Your task to perform on an android device: Go to Reddit.com Image 0: 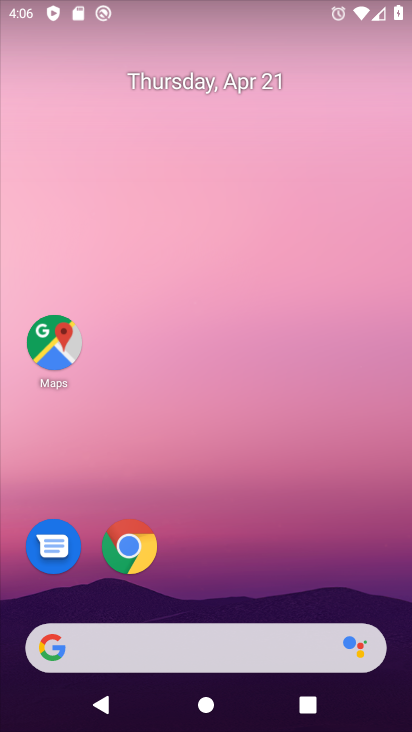
Step 0: drag from (235, 490) to (237, 182)
Your task to perform on an android device: Go to Reddit.com Image 1: 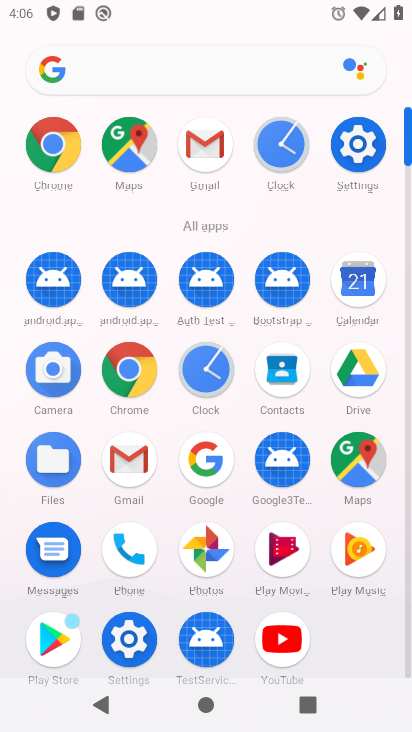
Step 1: click (131, 375)
Your task to perform on an android device: Go to Reddit.com Image 2: 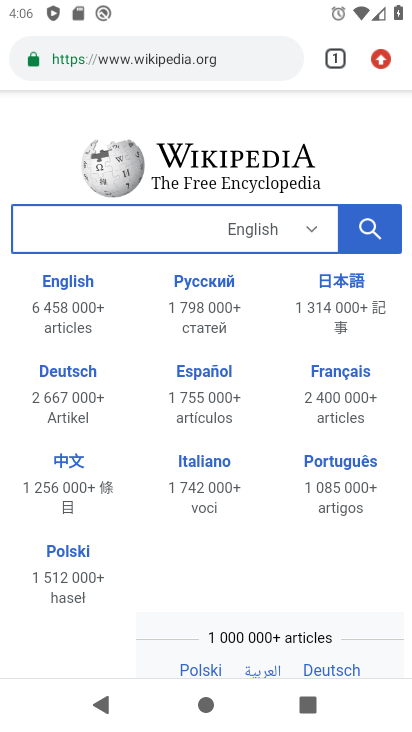
Step 2: click (241, 52)
Your task to perform on an android device: Go to Reddit.com Image 3: 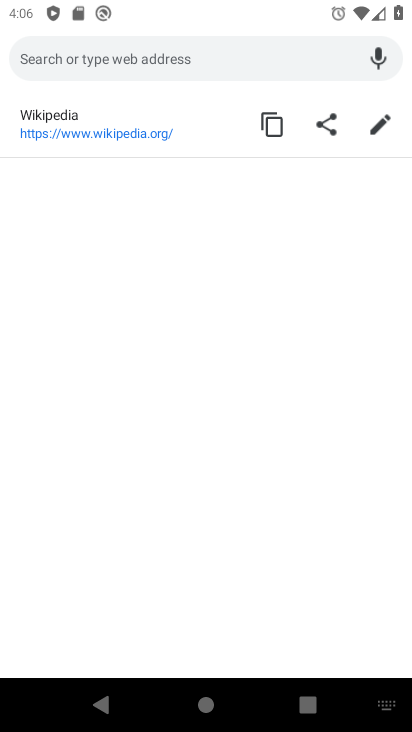
Step 3: type "reddit.com"
Your task to perform on an android device: Go to Reddit.com Image 4: 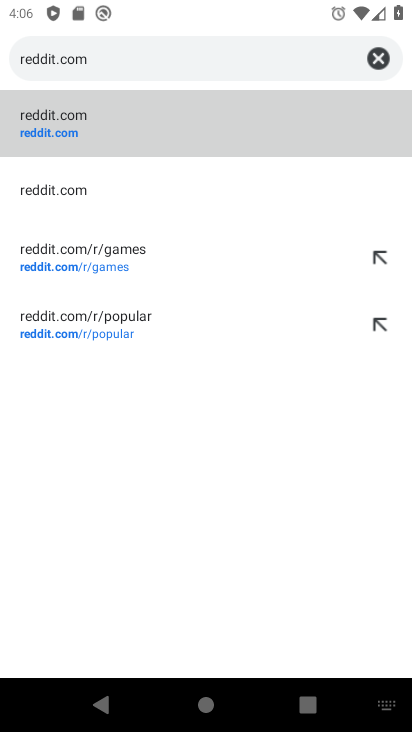
Step 4: click (55, 122)
Your task to perform on an android device: Go to Reddit.com Image 5: 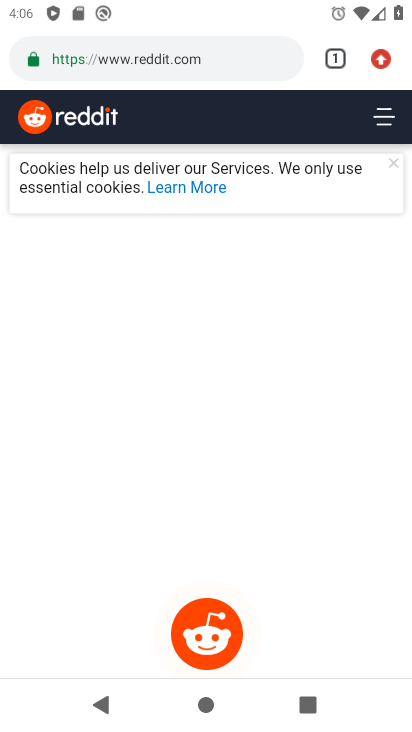
Step 5: task complete